Your task to perform on an android device: change alarm snooze length Image 0: 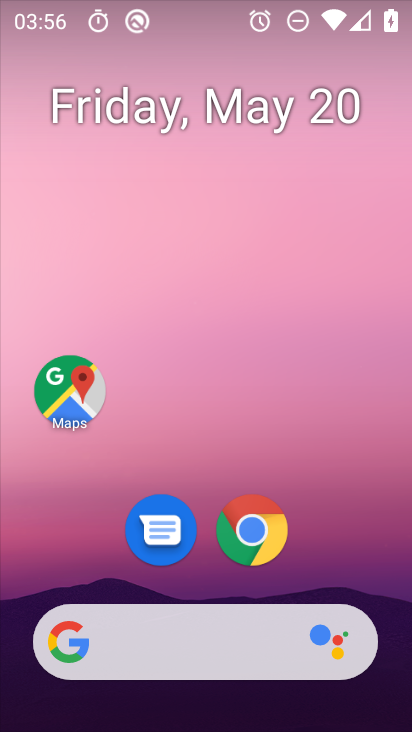
Step 0: drag from (396, 660) to (379, 257)
Your task to perform on an android device: change alarm snooze length Image 1: 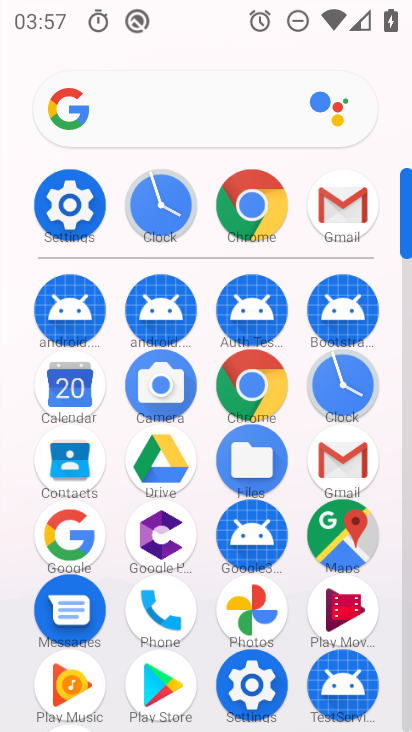
Step 1: click (357, 378)
Your task to perform on an android device: change alarm snooze length Image 2: 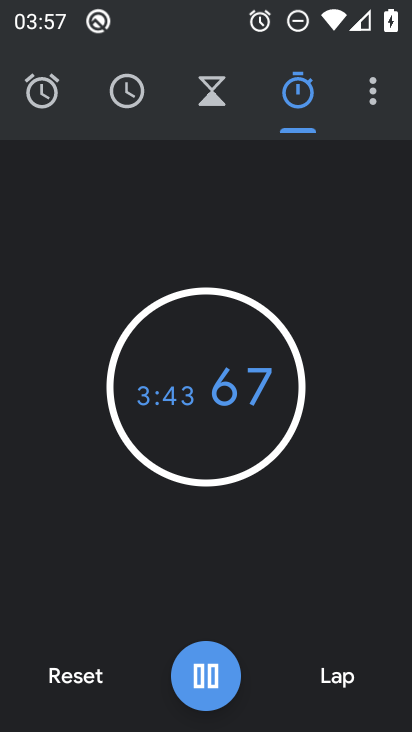
Step 2: click (376, 85)
Your task to perform on an android device: change alarm snooze length Image 3: 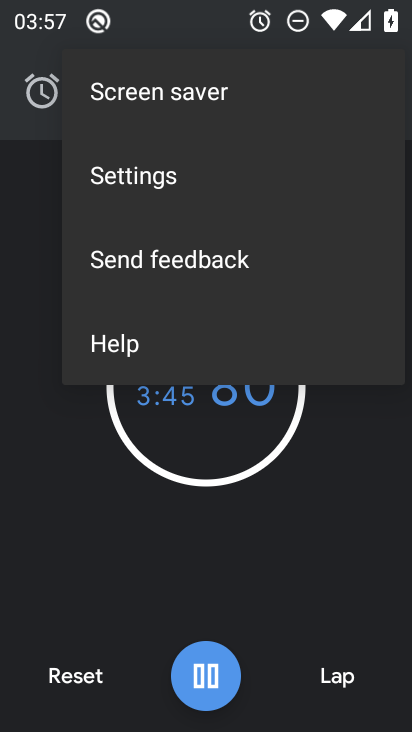
Step 3: click (120, 181)
Your task to perform on an android device: change alarm snooze length Image 4: 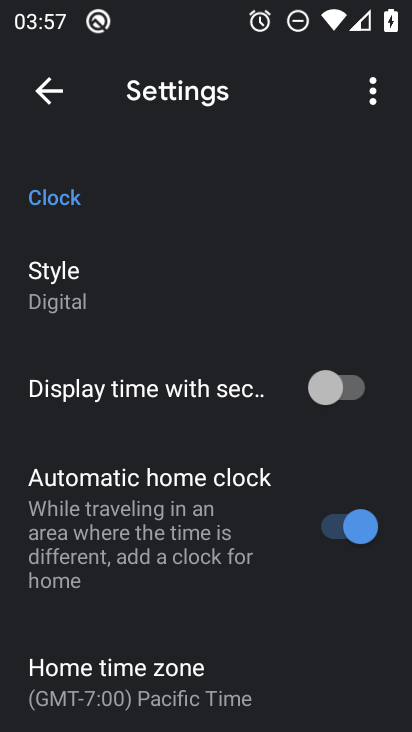
Step 4: drag from (234, 632) to (255, 323)
Your task to perform on an android device: change alarm snooze length Image 5: 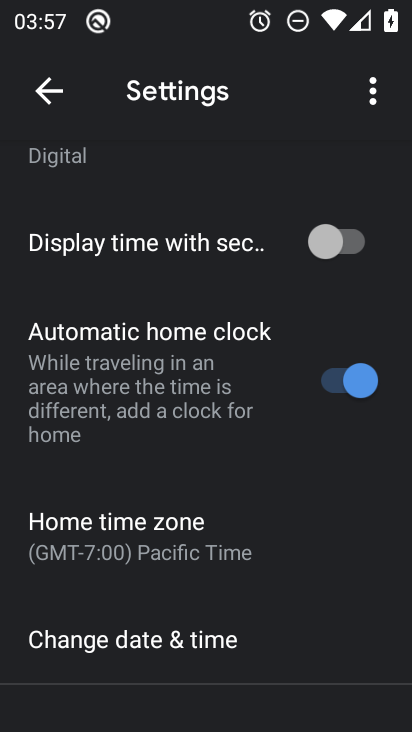
Step 5: drag from (250, 677) to (265, 332)
Your task to perform on an android device: change alarm snooze length Image 6: 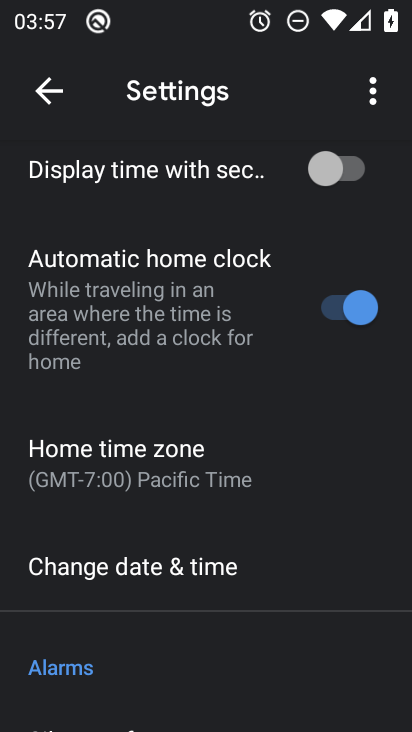
Step 6: drag from (283, 691) to (283, 358)
Your task to perform on an android device: change alarm snooze length Image 7: 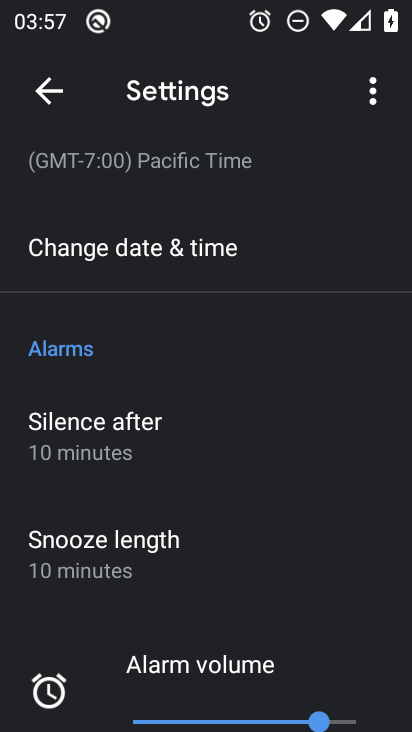
Step 7: click (97, 539)
Your task to perform on an android device: change alarm snooze length Image 8: 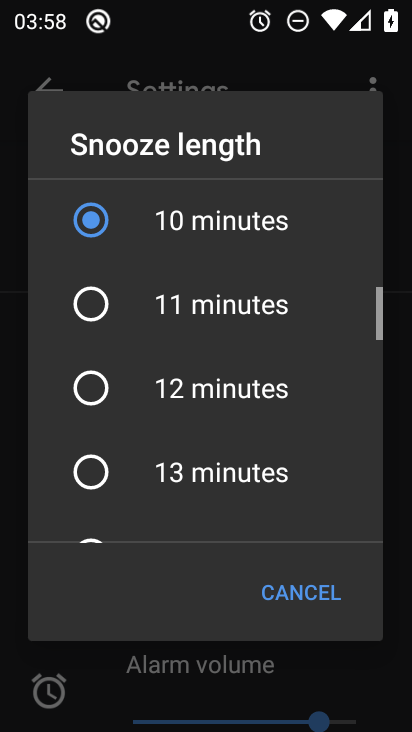
Step 8: click (76, 373)
Your task to perform on an android device: change alarm snooze length Image 9: 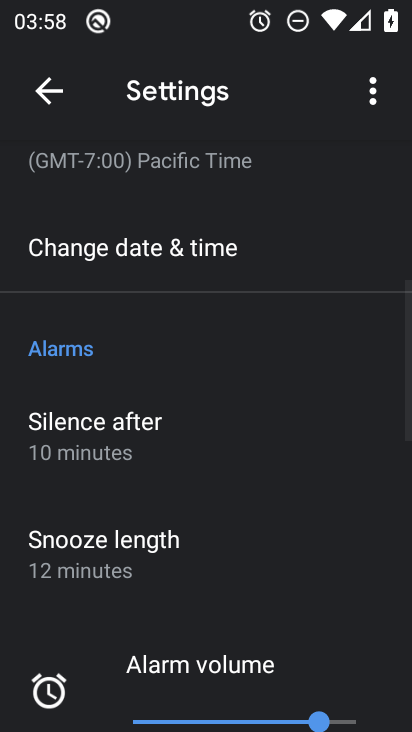
Step 9: task complete